Your task to perform on an android device: change the clock display to show seconds Image 0: 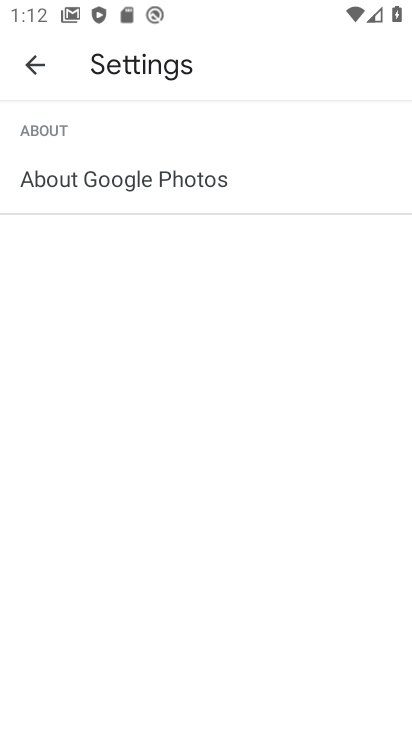
Step 0: press home button
Your task to perform on an android device: change the clock display to show seconds Image 1: 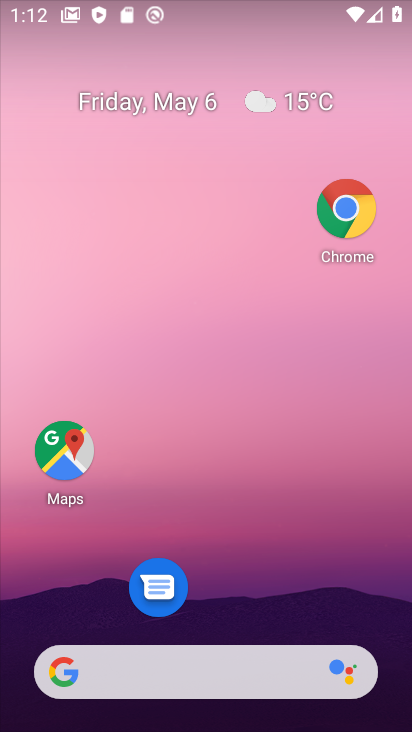
Step 1: drag from (263, 610) to (237, 34)
Your task to perform on an android device: change the clock display to show seconds Image 2: 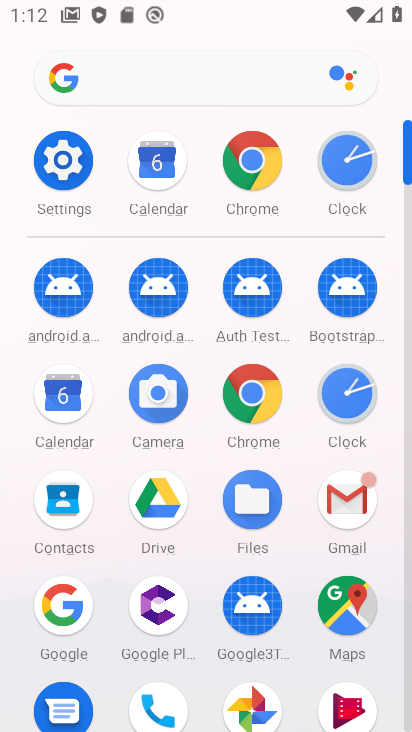
Step 2: click (338, 400)
Your task to perform on an android device: change the clock display to show seconds Image 3: 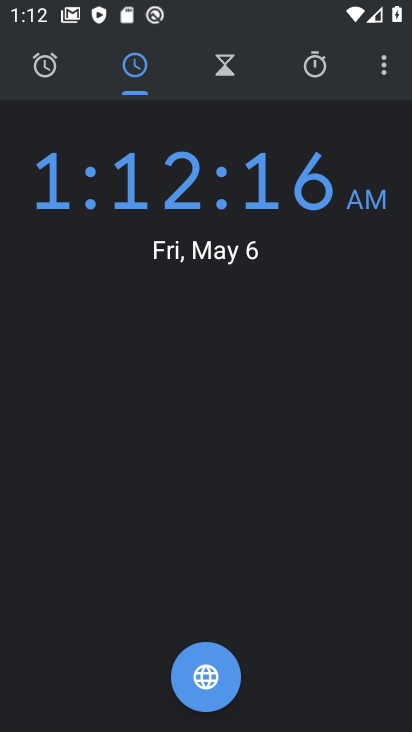
Step 3: click (392, 62)
Your task to perform on an android device: change the clock display to show seconds Image 4: 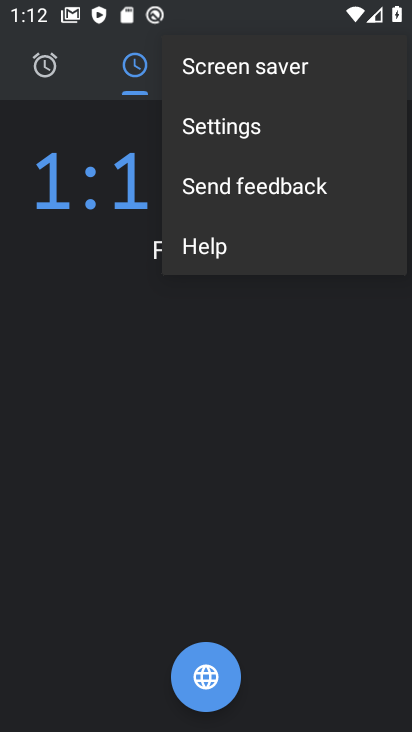
Step 4: click (253, 134)
Your task to perform on an android device: change the clock display to show seconds Image 5: 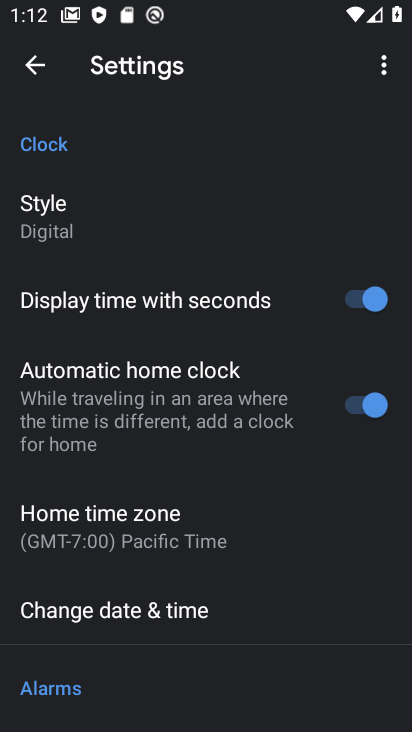
Step 5: task complete